Your task to perform on an android device: turn off picture-in-picture Image 0: 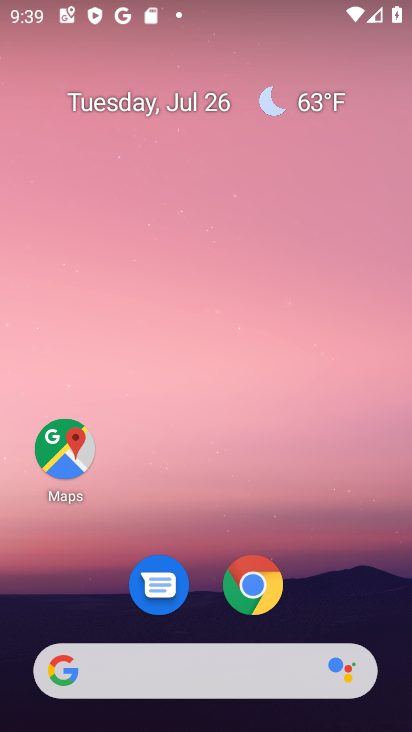
Step 0: click (264, 573)
Your task to perform on an android device: turn off picture-in-picture Image 1: 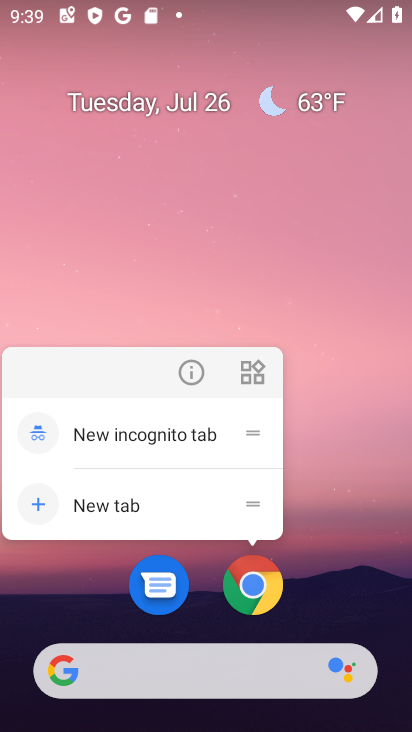
Step 1: click (194, 365)
Your task to perform on an android device: turn off picture-in-picture Image 2: 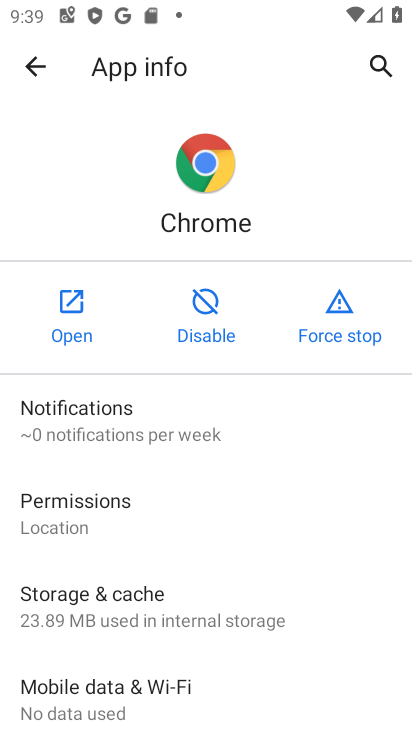
Step 2: drag from (218, 567) to (251, 452)
Your task to perform on an android device: turn off picture-in-picture Image 3: 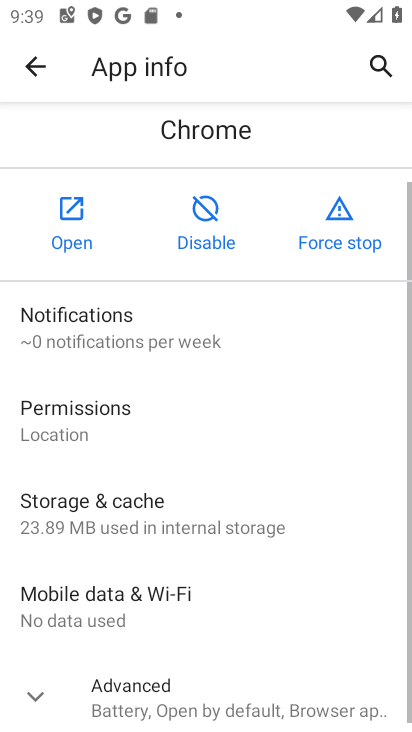
Step 3: drag from (255, 404) to (265, 235)
Your task to perform on an android device: turn off picture-in-picture Image 4: 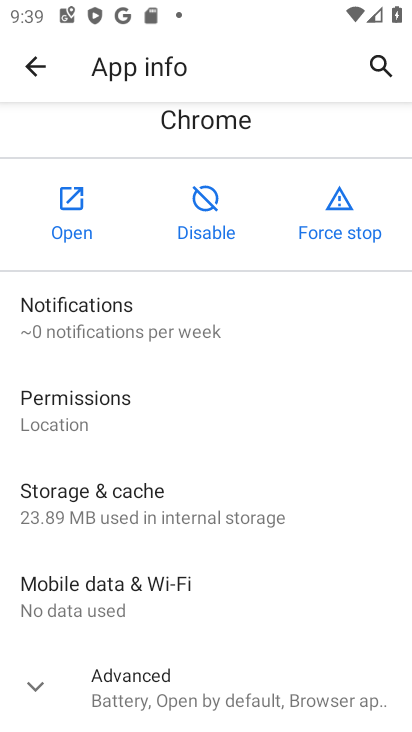
Step 4: click (36, 685)
Your task to perform on an android device: turn off picture-in-picture Image 5: 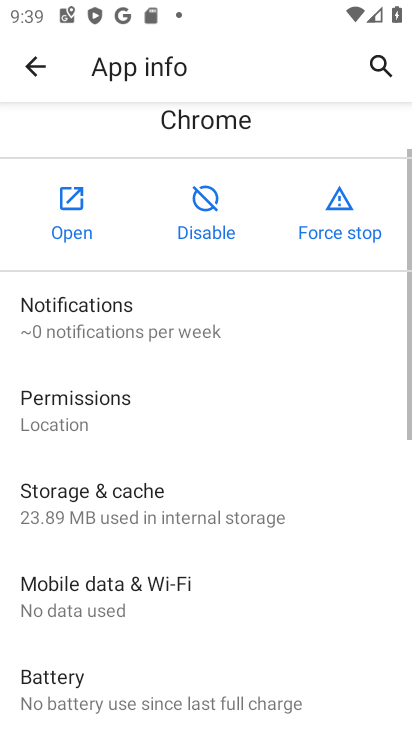
Step 5: drag from (252, 656) to (272, 263)
Your task to perform on an android device: turn off picture-in-picture Image 6: 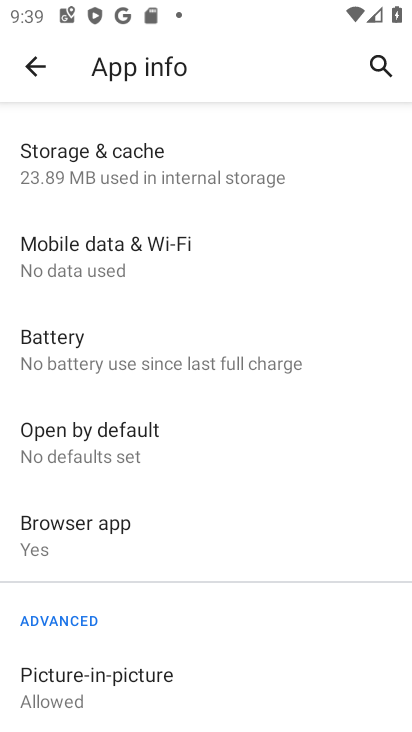
Step 6: click (130, 681)
Your task to perform on an android device: turn off picture-in-picture Image 7: 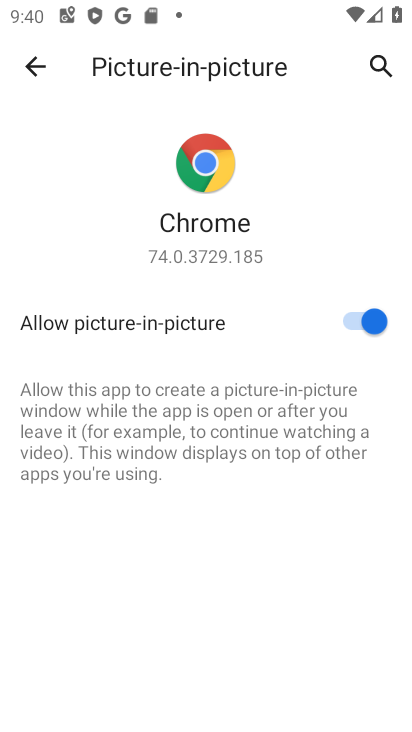
Step 7: click (351, 311)
Your task to perform on an android device: turn off picture-in-picture Image 8: 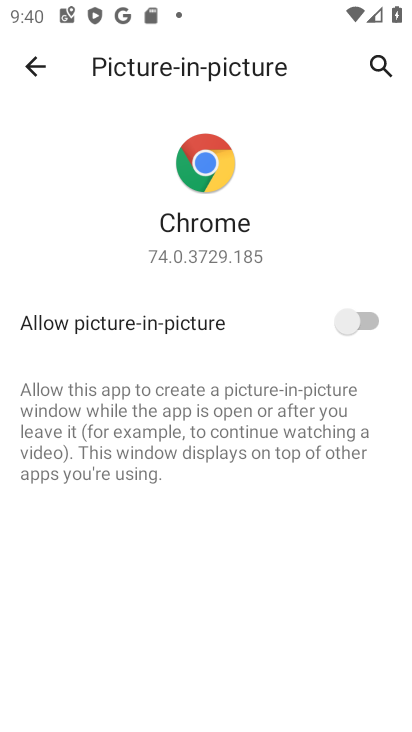
Step 8: task complete